Your task to perform on an android device: open app "Reddit" Image 0: 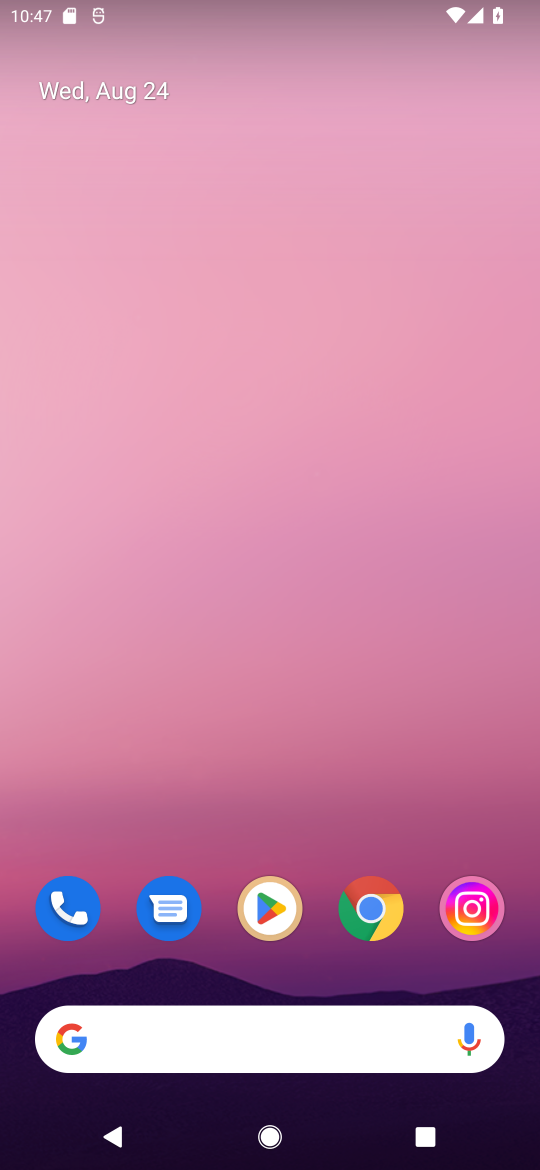
Step 0: click (276, 893)
Your task to perform on an android device: open app "Reddit" Image 1: 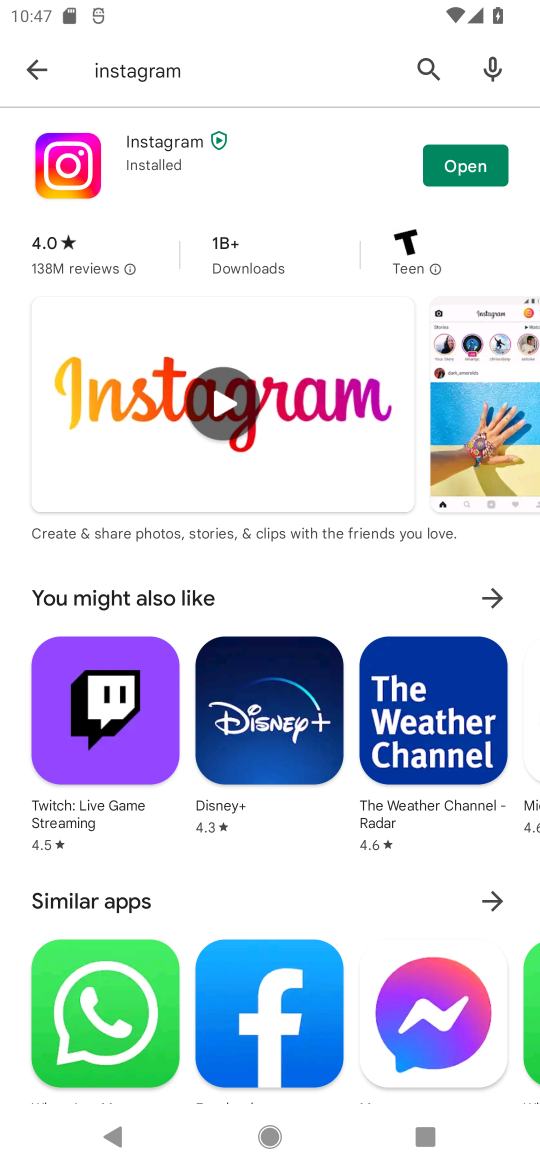
Step 1: click (39, 75)
Your task to perform on an android device: open app "Reddit" Image 2: 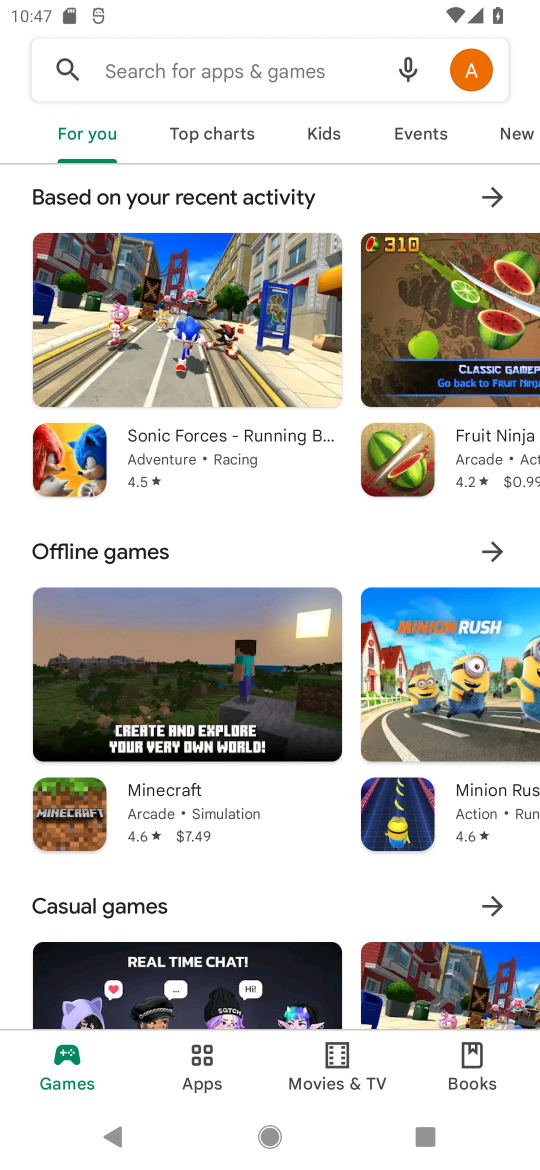
Step 2: click (169, 65)
Your task to perform on an android device: open app "Reddit" Image 3: 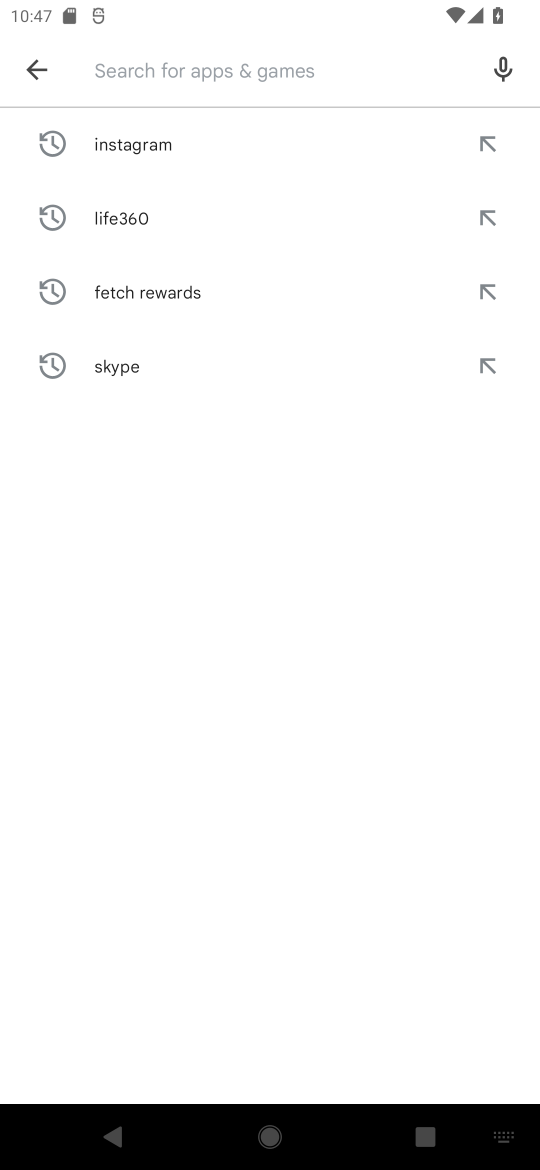
Step 3: click (331, 1169)
Your task to perform on an android device: open app "Reddit" Image 4: 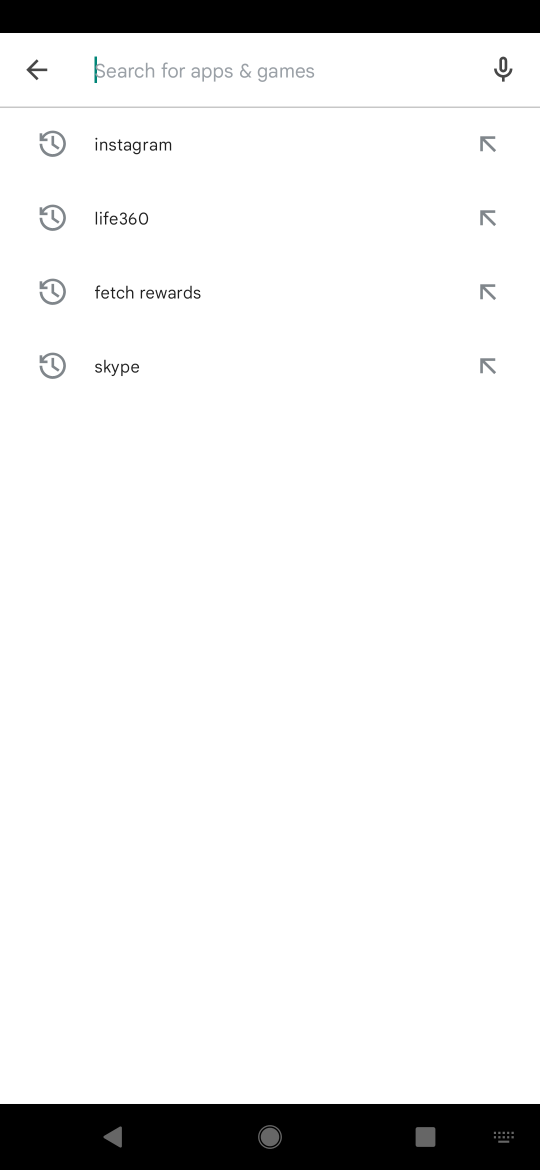
Step 4: type "Reddit"
Your task to perform on an android device: open app "Reddit" Image 5: 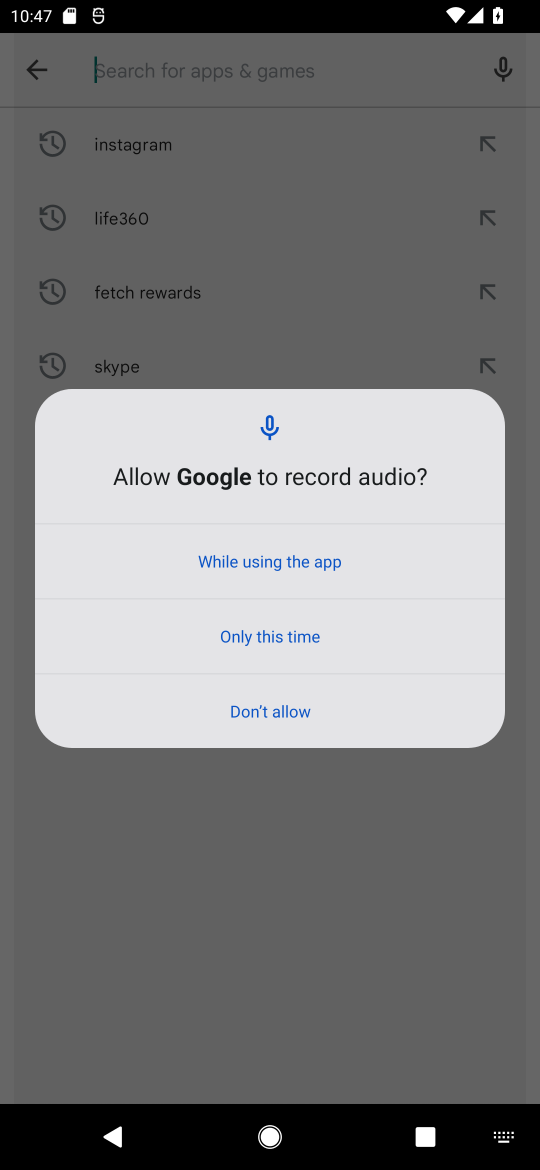
Step 5: drag from (331, 1169) to (538, 553)
Your task to perform on an android device: open app "Reddit" Image 6: 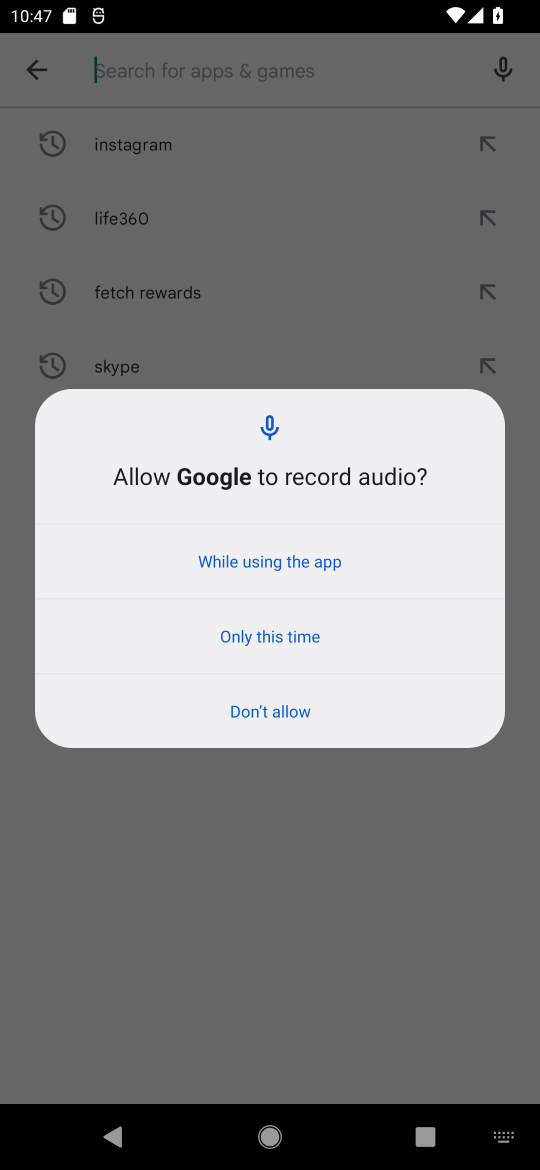
Step 6: click (282, 556)
Your task to perform on an android device: open app "Reddit" Image 7: 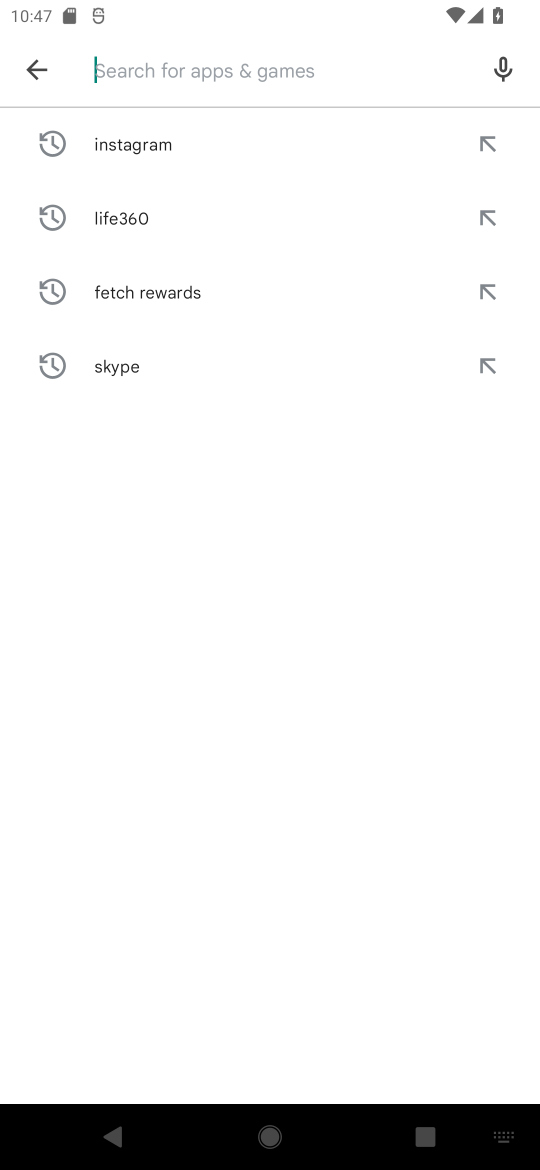
Step 7: type "Reddit"
Your task to perform on an android device: open app "Reddit" Image 8: 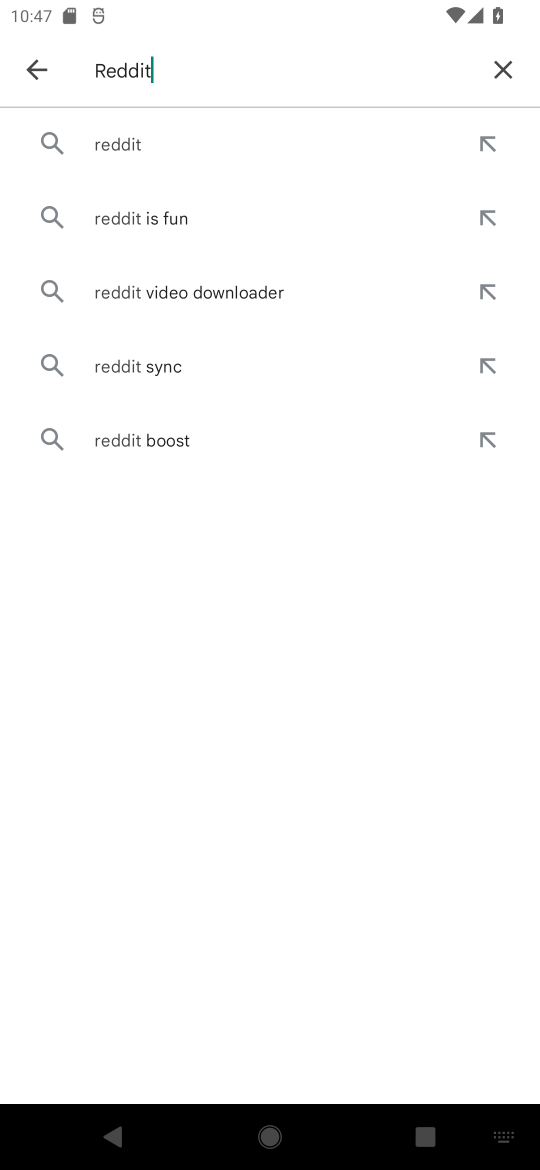
Step 8: click (137, 130)
Your task to perform on an android device: open app "Reddit" Image 9: 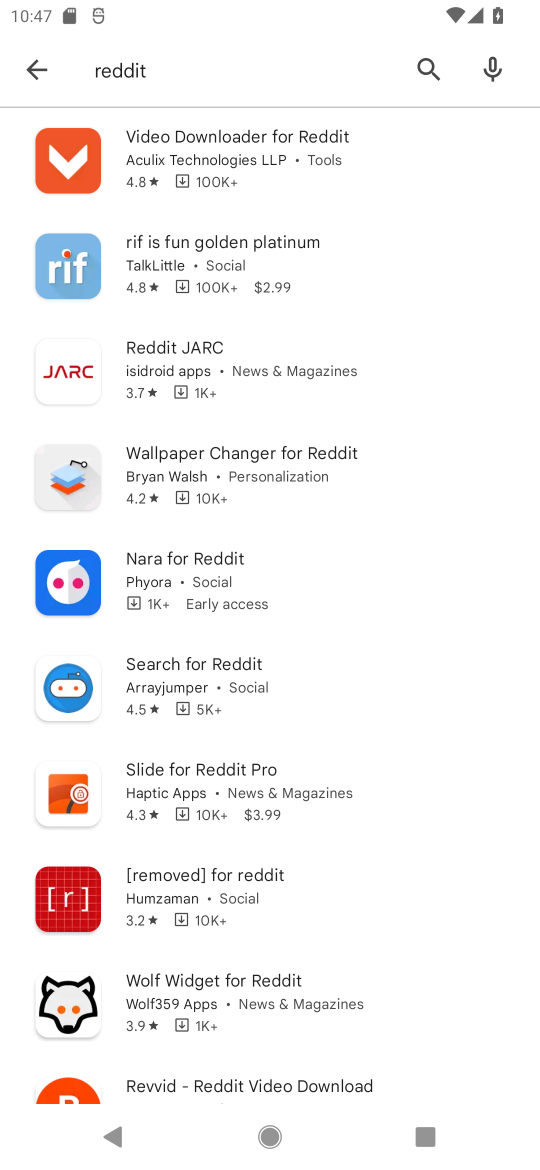
Step 9: task complete